Your task to perform on an android device: set the timer Image 0: 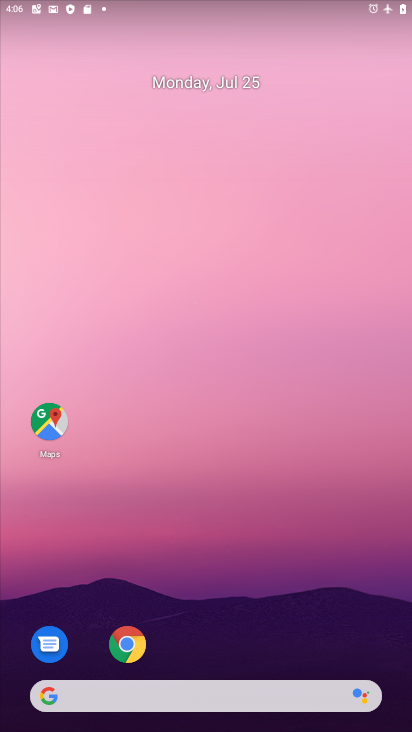
Step 0: press home button
Your task to perform on an android device: set the timer Image 1: 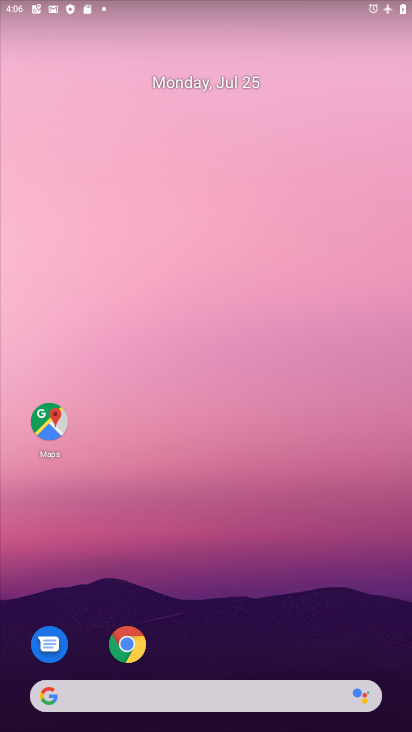
Step 1: drag from (303, 617) to (323, 9)
Your task to perform on an android device: set the timer Image 2: 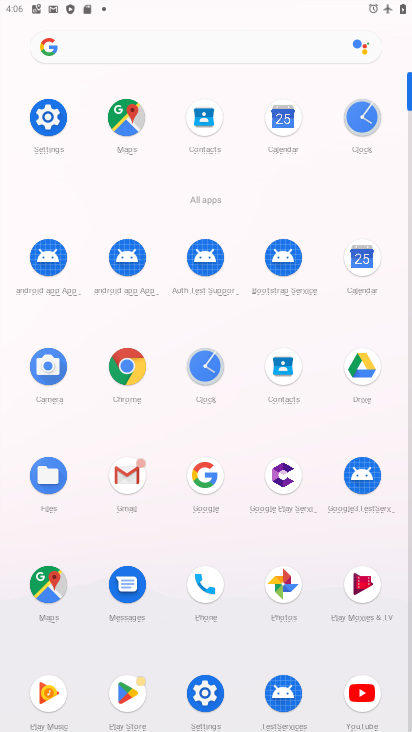
Step 2: click (367, 121)
Your task to perform on an android device: set the timer Image 3: 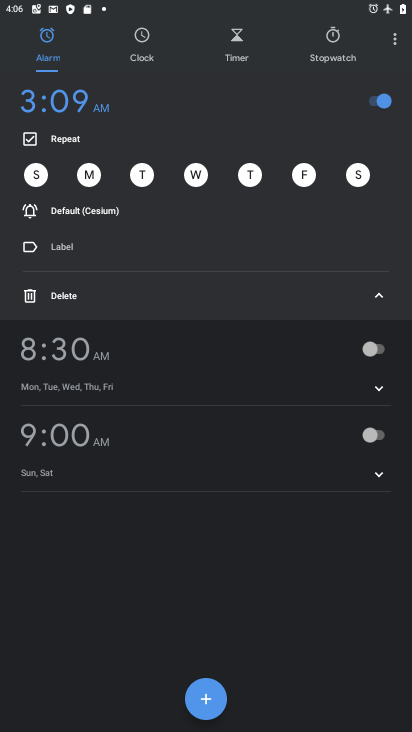
Step 3: click (243, 45)
Your task to perform on an android device: set the timer Image 4: 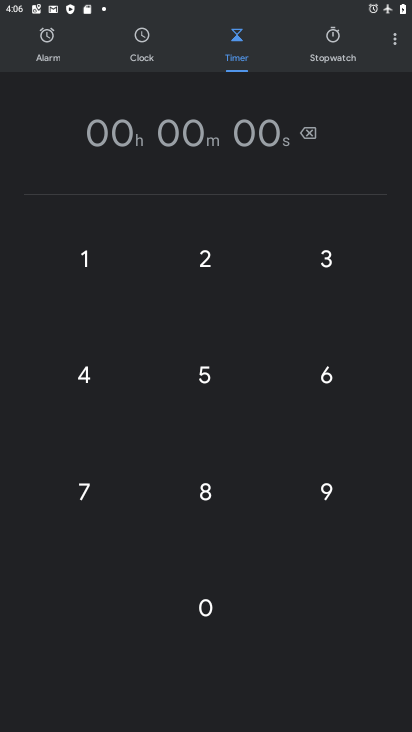
Step 4: click (201, 375)
Your task to perform on an android device: set the timer Image 5: 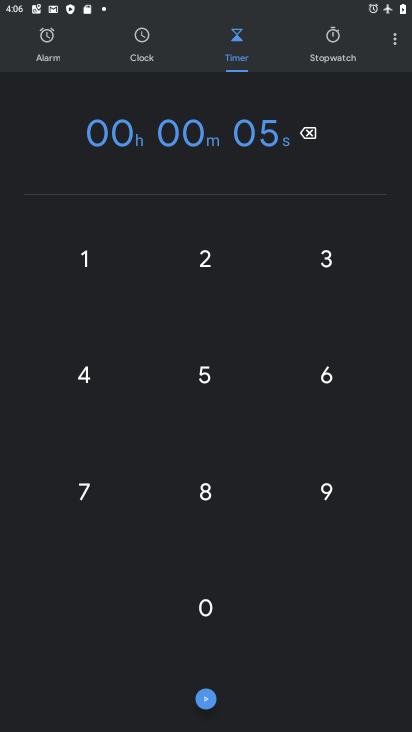
Step 5: click (192, 480)
Your task to perform on an android device: set the timer Image 6: 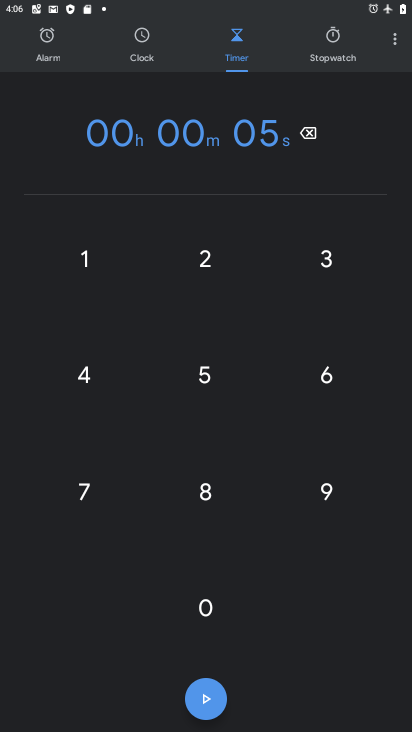
Step 6: click (192, 480)
Your task to perform on an android device: set the timer Image 7: 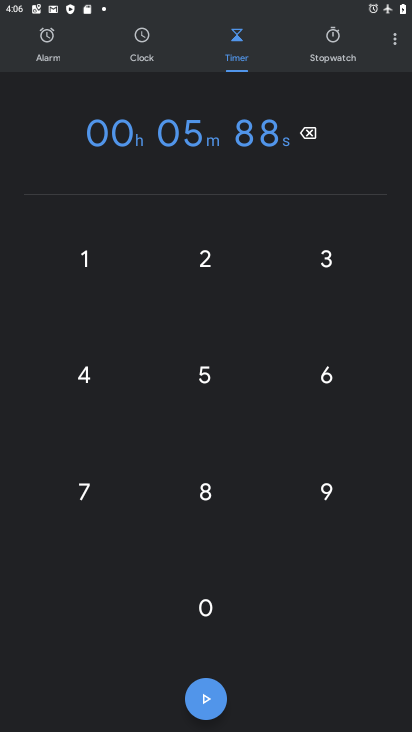
Step 7: click (82, 252)
Your task to perform on an android device: set the timer Image 8: 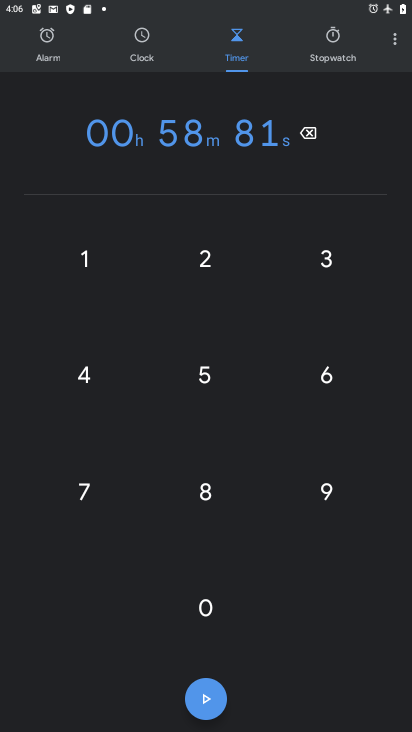
Step 8: click (80, 262)
Your task to perform on an android device: set the timer Image 9: 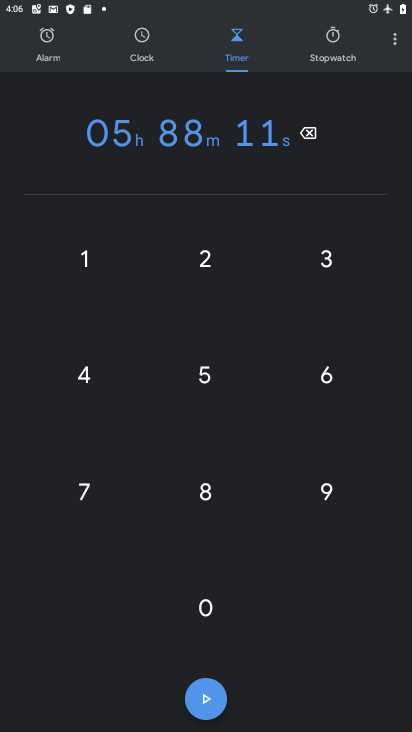
Step 9: click (184, 689)
Your task to perform on an android device: set the timer Image 10: 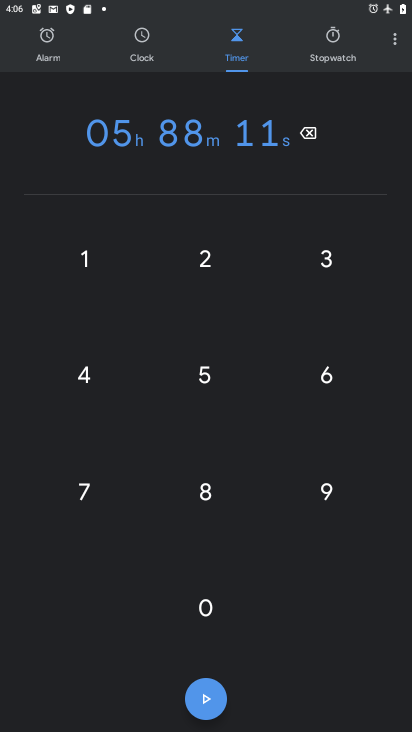
Step 10: click (191, 694)
Your task to perform on an android device: set the timer Image 11: 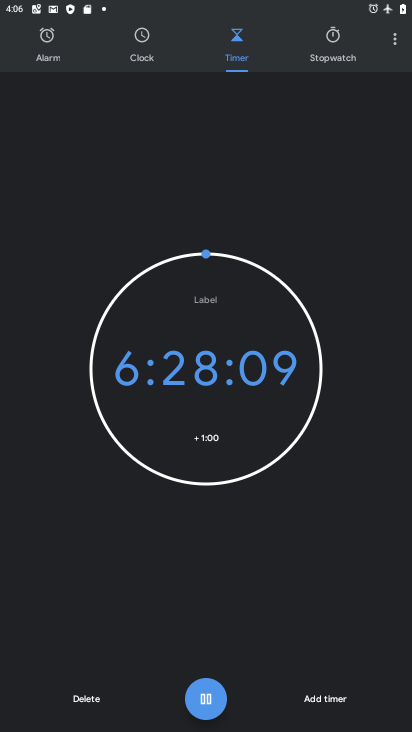
Step 11: click (203, 701)
Your task to perform on an android device: set the timer Image 12: 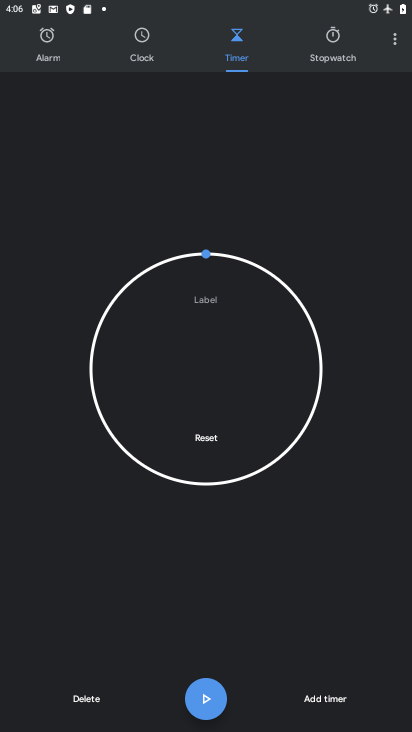
Step 12: task complete